Your task to perform on an android device: toggle notifications settings in the gmail app Image 0: 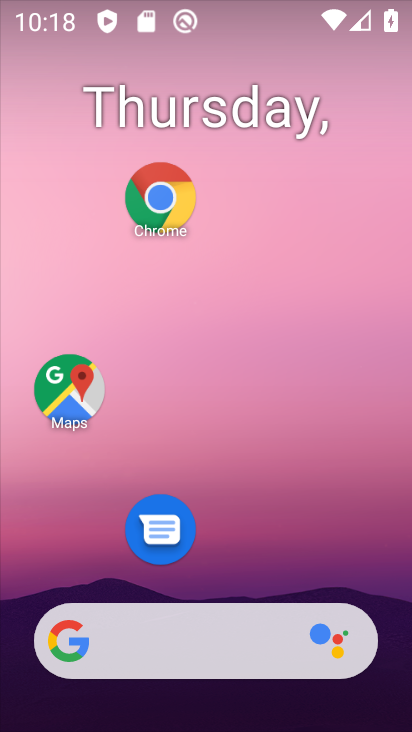
Step 0: drag from (304, 527) to (211, 45)
Your task to perform on an android device: toggle notifications settings in the gmail app Image 1: 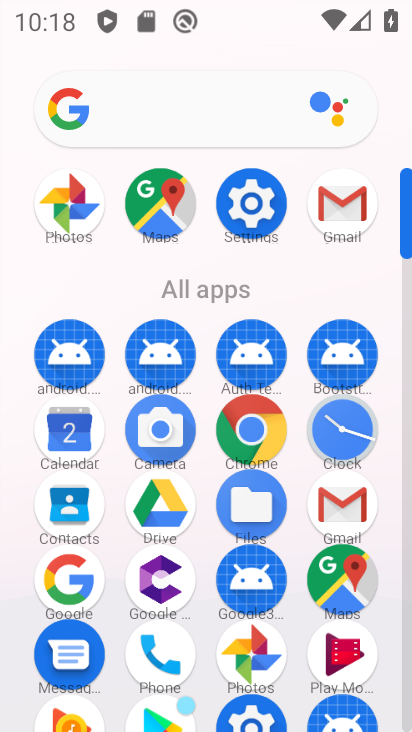
Step 1: click (329, 511)
Your task to perform on an android device: toggle notifications settings in the gmail app Image 2: 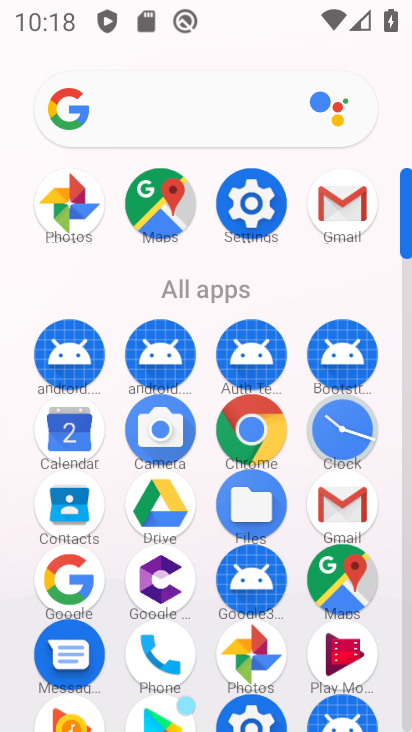
Step 2: click (329, 511)
Your task to perform on an android device: toggle notifications settings in the gmail app Image 3: 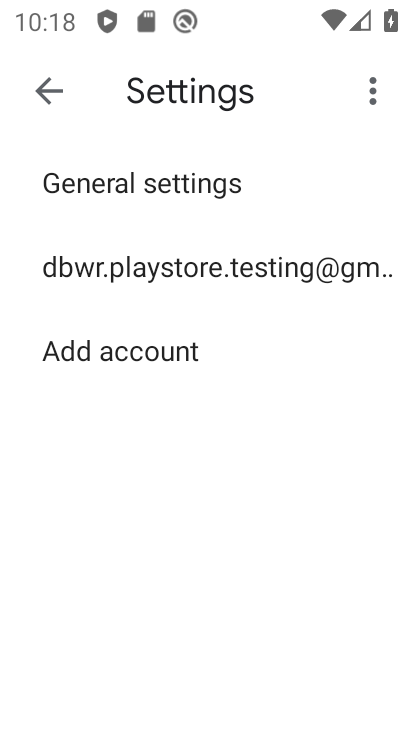
Step 3: click (133, 178)
Your task to perform on an android device: toggle notifications settings in the gmail app Image 4: 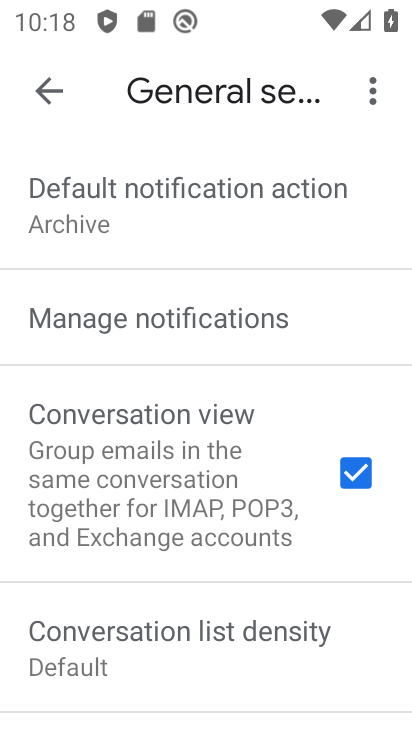
Step 4: click (155, 306)
Your task to perform on an android device: toggle notifications settings in the gmail app Image 5: 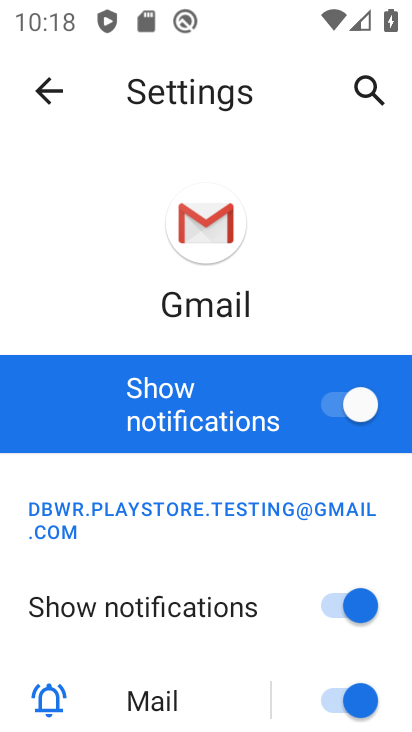
Step 5: click (362, 401)
Your task to perform on an android device: toggle notifications settings in the gmail app Image 6: 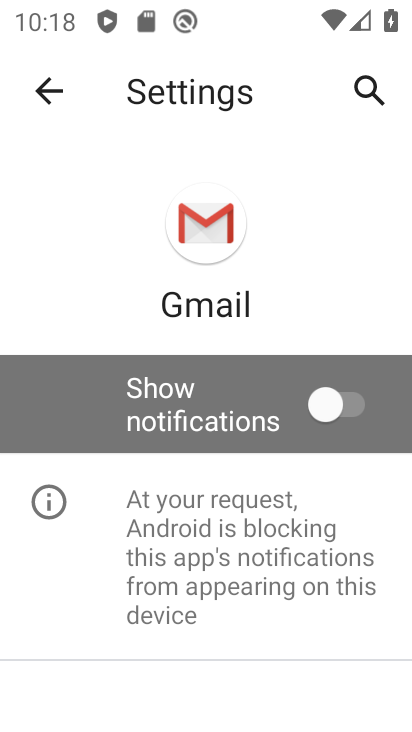
Step 6: task complete